Your task to perform on an android device: check out phone information Image 0: 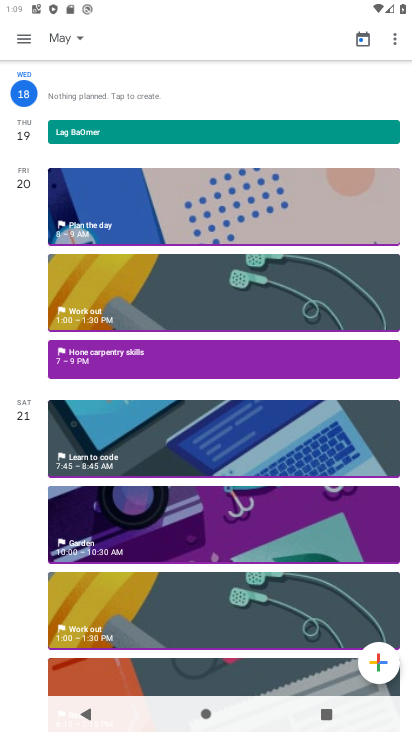
Step 0: press home button
Your task to perform on an android device: check out phone information Image 1: 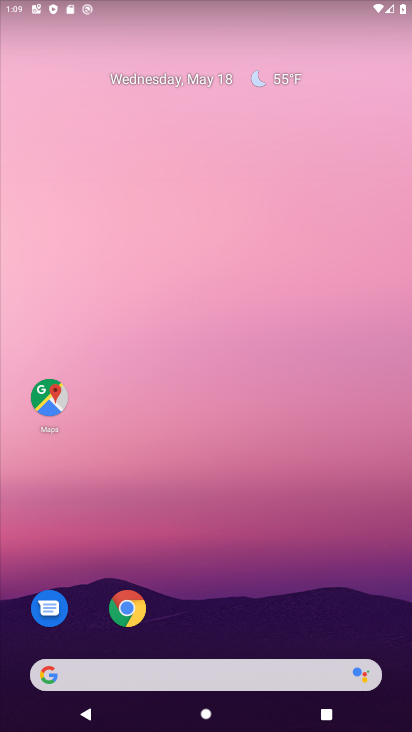
Step 1: drag from (234, 611) to (302, 182)
Your task to perform on an android device: check out phone information Image 2: 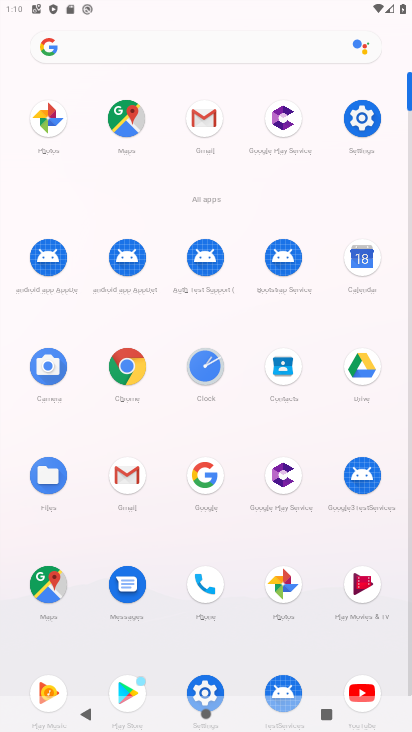
Step 2: click (206, 586)
Your task to perform on an android device: check out phone information Image 3: 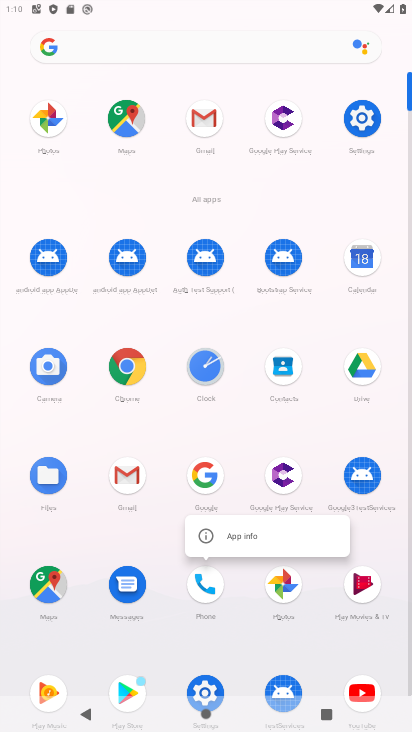
Step 3: click (233, 544)
Your task to perform on an android device: check out phone information Image 4: 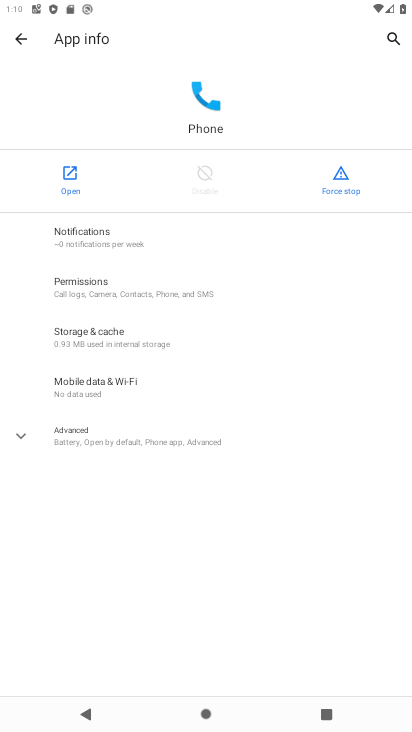
Step 4: task complete